Your task to perform on an android device: Open settings on Google Maps Image 0: 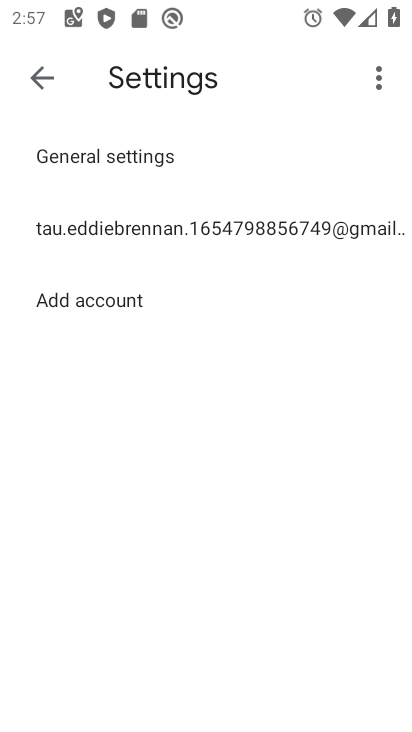
Step 0: press home button
Your task to perform on an android device: Open settings on Google Maps Image 1: 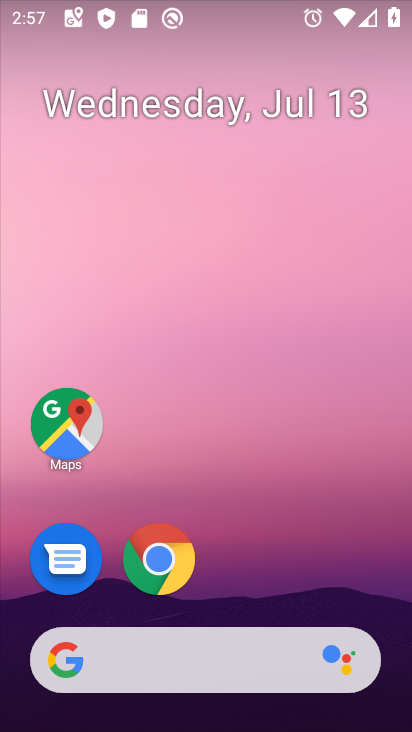
Step 1: drag from (348, 575) to (322, 124)
Your task to perform on an android device: Open settings on Google Maps Image 2: 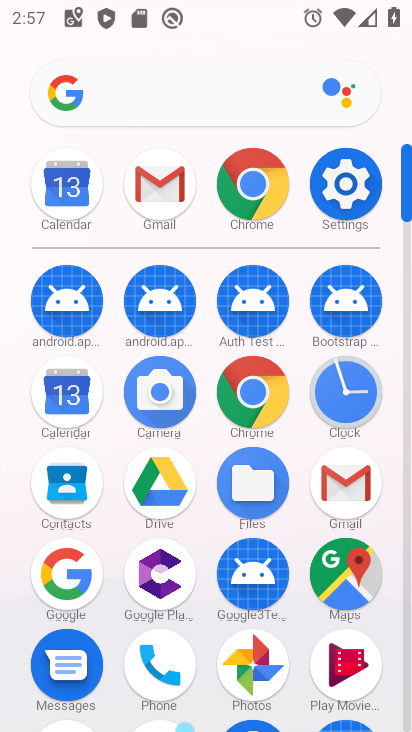
Step 2: click (336, 584)
Your task to perform on an android device: Open settings on Google Maps Image 3: 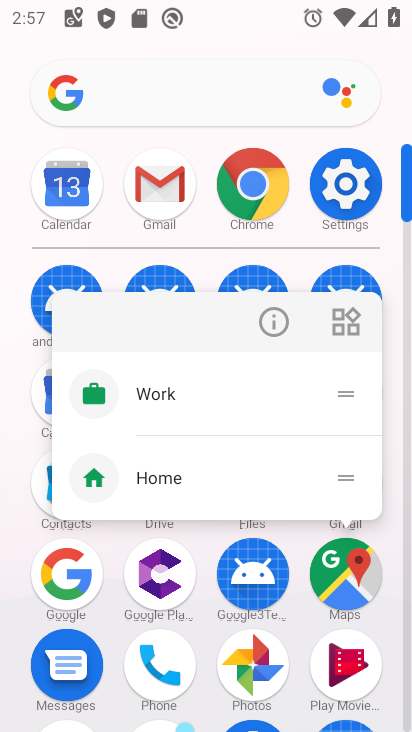
Step 3: click (333, 582)
Your task to perform on an android device: Open settings on Google Maps Image 4: 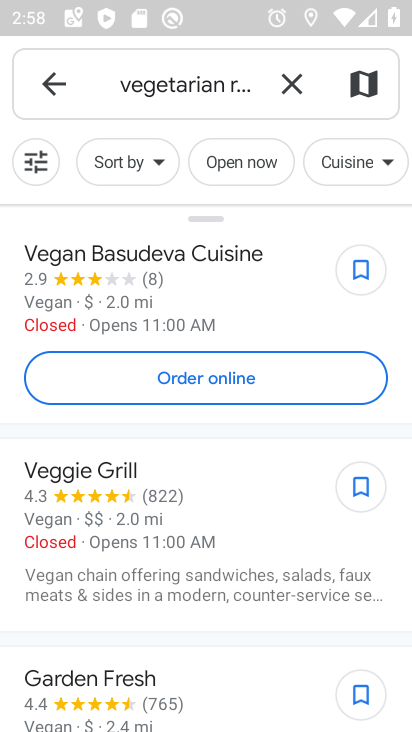
Step 4: press back button
Your task to perform on an android device: Open settings on Google Maps Image 5: 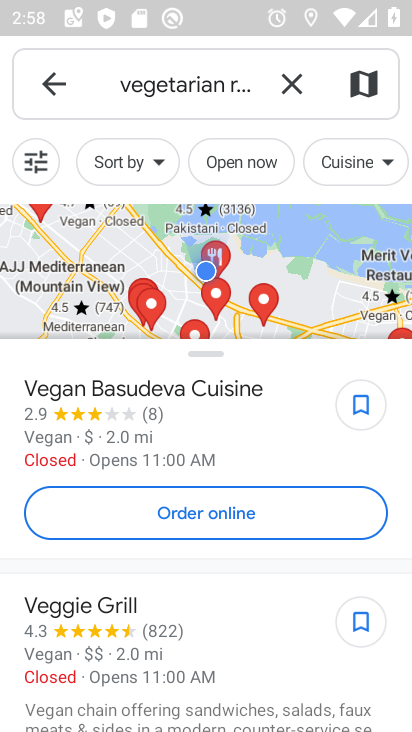
Step 5: press back button
Your task to perform on an android device: Open settings on Google Maps Image 6: 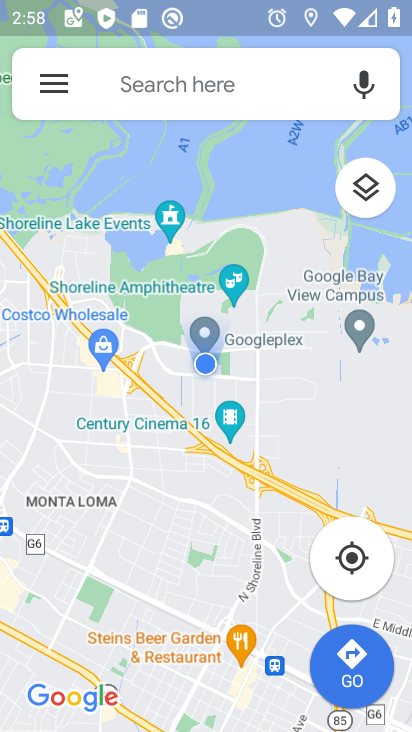
Step 6: click (62, 85)
Your task to perform on an android device: Open settings on Google Maps Image 7: 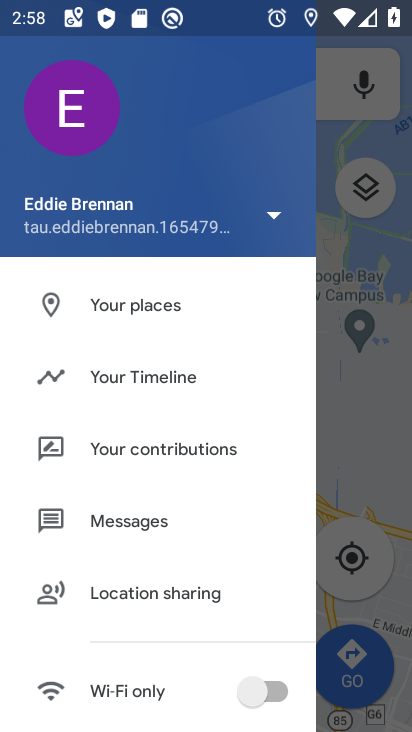
Step 7: drag from (258, 478) to (255, 322)
Your task to perform on an android device: Open settings on Google Maps Image 8: 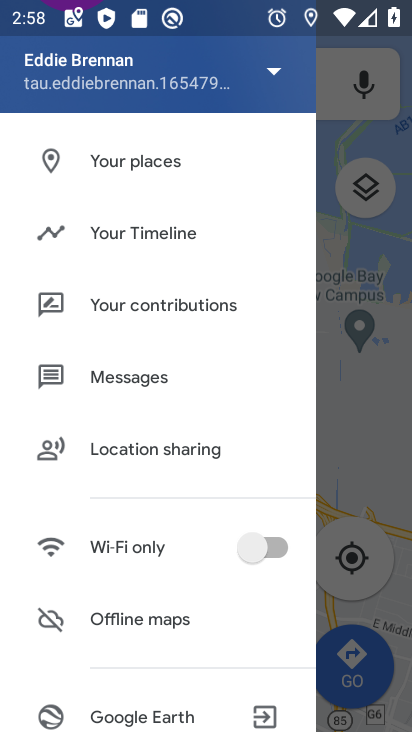
Step 8: drag from (208, 515) to (200, 357)
Your task to perform on an android device: Open settings on Google Maps Image 9: 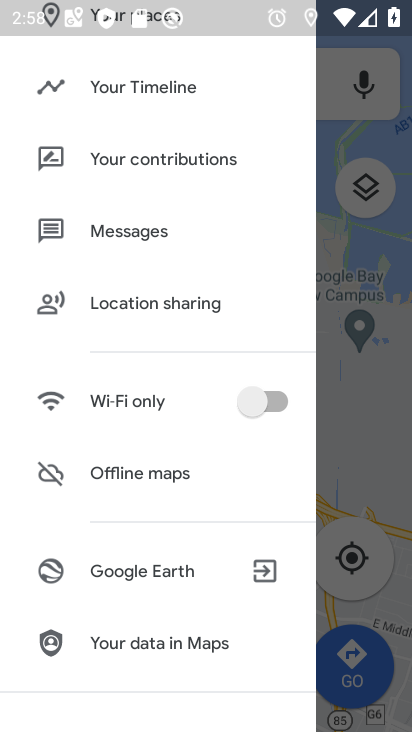
Step 9: drag from (210, 578) to (208, 335)
Your task to perform on an android device: Open settings on Google Maps Image 10: 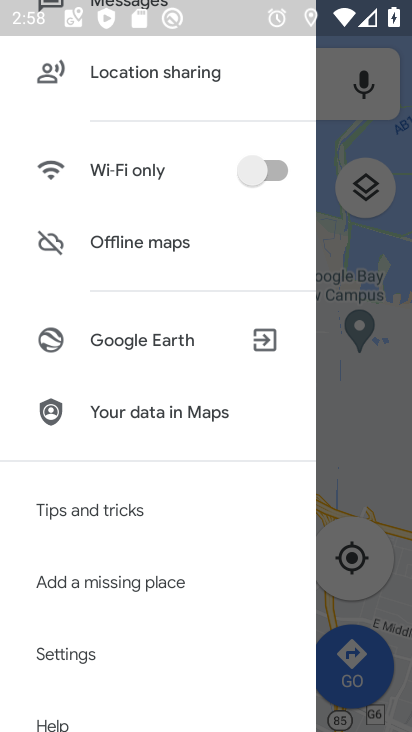
Step 10: drag from (206, 589) to (200, 439)
Your task to perform on an android device: Open settings on Google Maps Image 11: 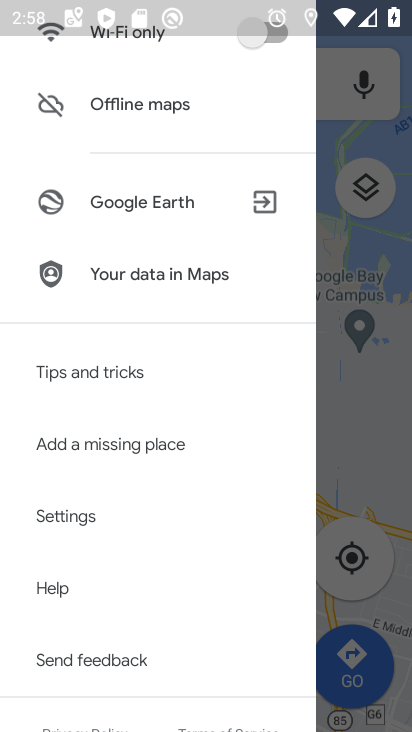
Step 11: click (100, 526)
Your task to perform on an android device: Open settings on Google Maps Image 12: 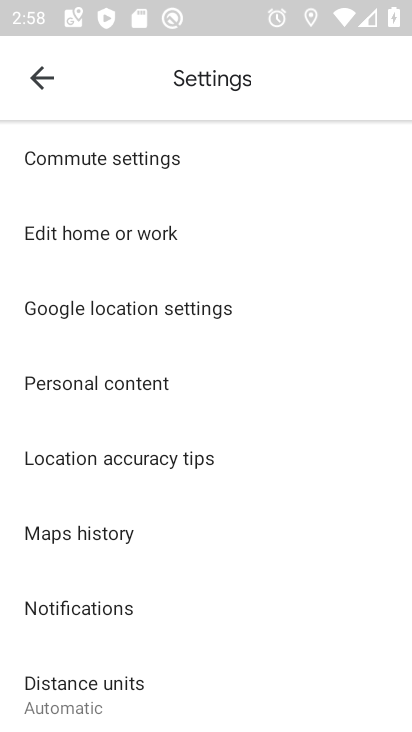
Step 12: task complete